Your task to perform on an android device: Go to Reddit.com Image 0: 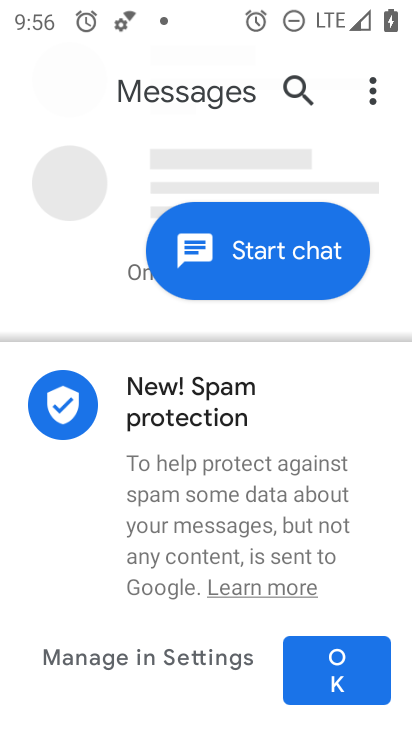
Step 0: press back button
Your task to perform on an android device: Go to Reddit.com Image 1: 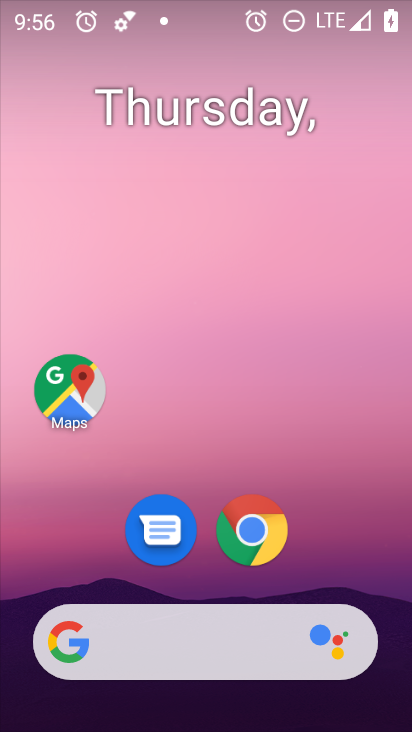
Step 1: drag from (355, 551) to (264, 62)
Your task to perform on an android device: Go to Reddit.com Image 2: 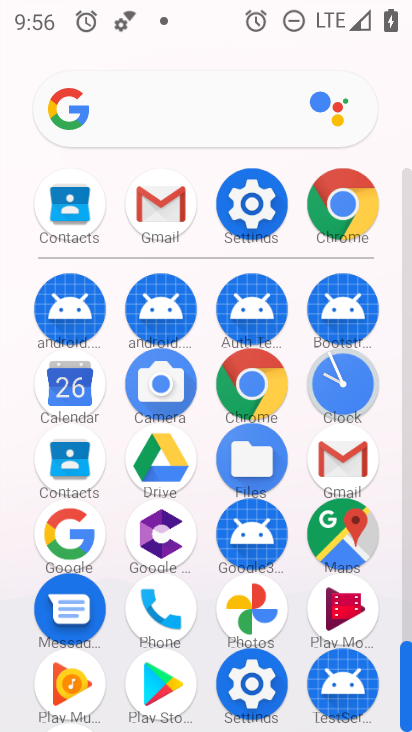
Step 2: click (245, 382)
Your task to perform on an android device: Go to Reddit.com Image 3: 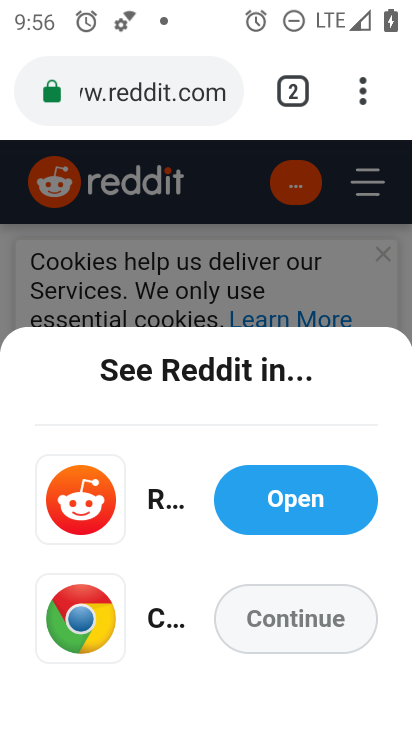
Step 3: task complete